Your task to perform on an android device: toggle location history Image 0: 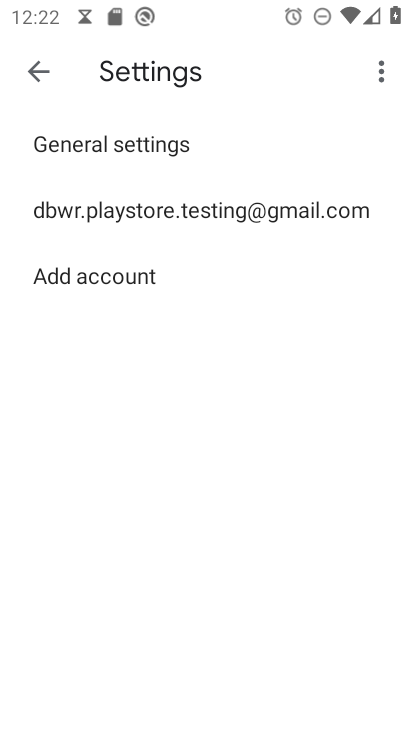
Step 0: press home button
Your task to perform on an android device: toggle location history Image 1: 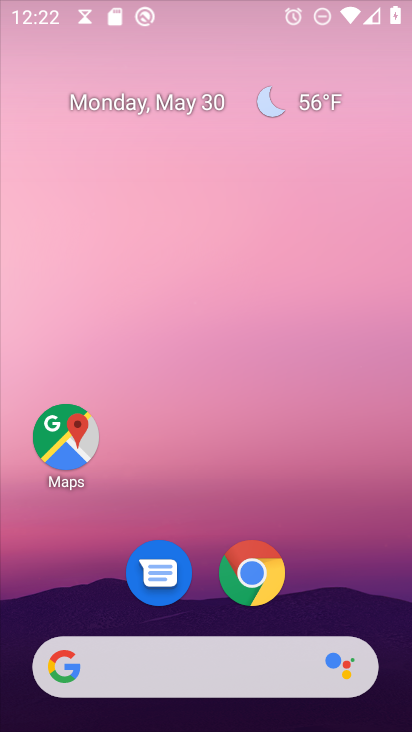
Step 1: drag from (332, 676) to (348, 40)
Your task to perform on an android device: toggle location history Image 2: 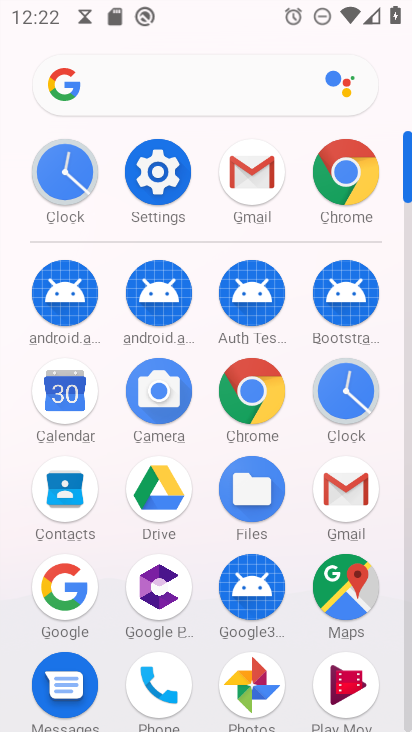
Step 2: click (152, 152)
Your task to perform on an android device: toggle location history Image 3: 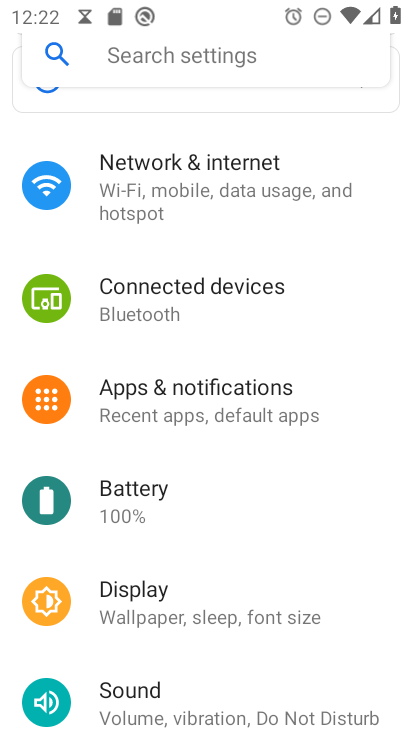
Step 3: drag from (193, 557) to (208, 21)
Your task to perform on an android device: toggle location history Image 4: 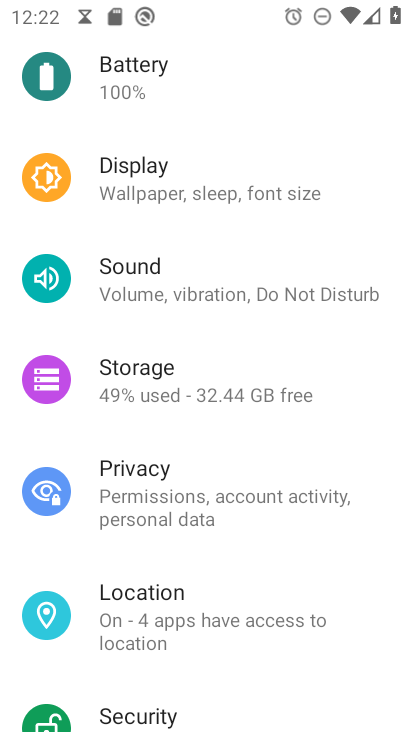
Step 4: click (193, 614)
Your task to perform on an android device: toggle location history Image 5: 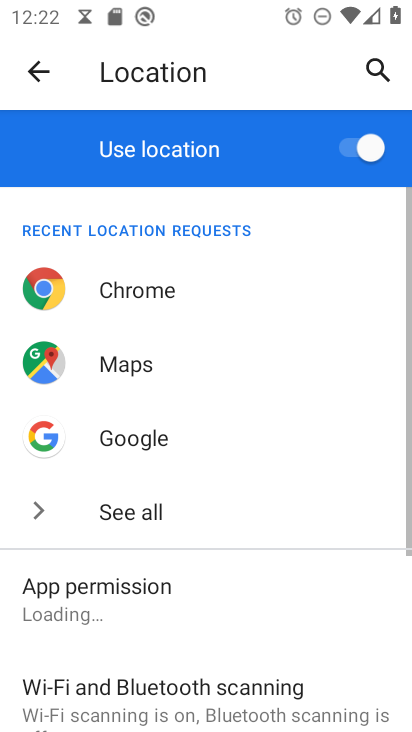
Step 5: drag from (190, 638) to (190, 74)
Your task to perform on an android device: toggle location history Image 6: 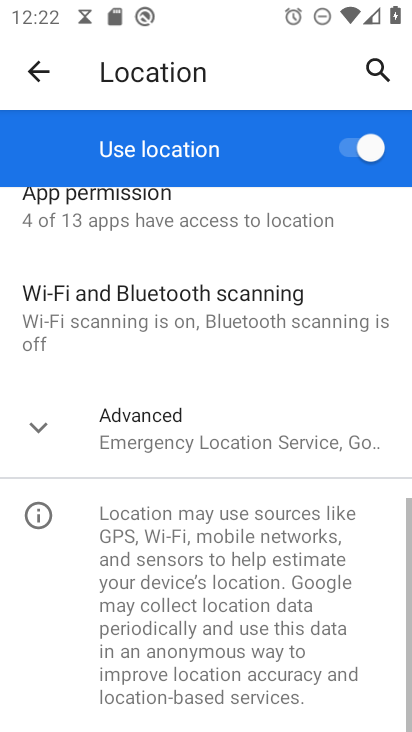
Step 6: click (177, 430)
Your task to perform on an android device: toggle location history Image 7: 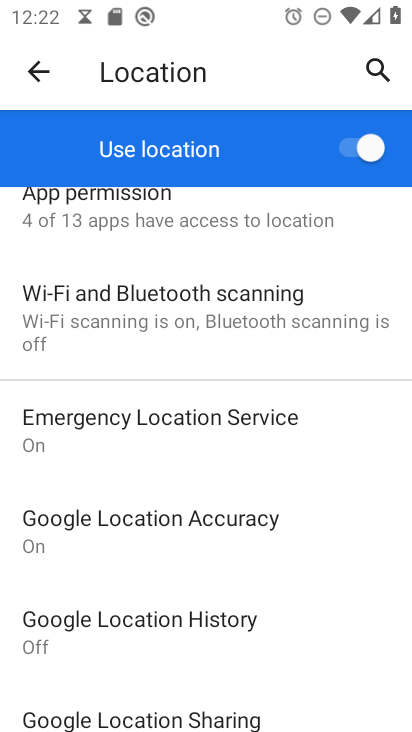
Step 7: click (211, 640)
Your task to perform on an android device: toggle location history Image 8: 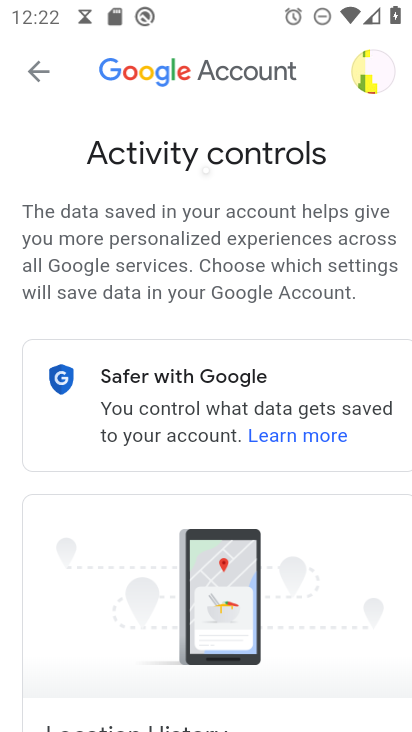
Step 8: drag from (279, 608) to (236, 5)
Your task to perform on an android device: toggle location history Image 9: 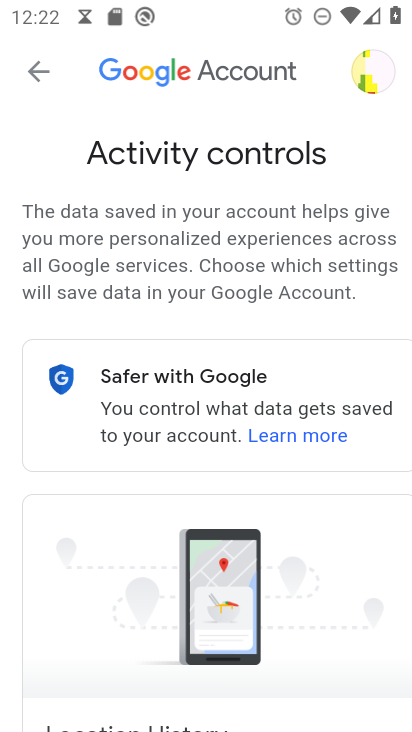
Step 9: drag from (245, 629) to (220, 2)
Your task to perform on an android device: toggle location history Image 10: 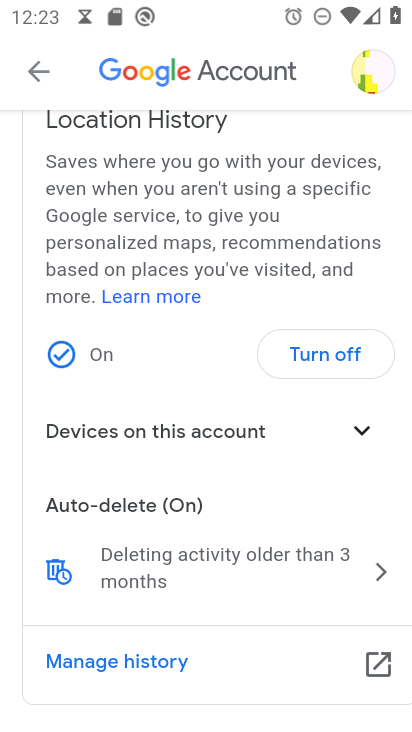
Step 10: click (318, 353)
Your task to perform on an android device: toggle location history Image 11: 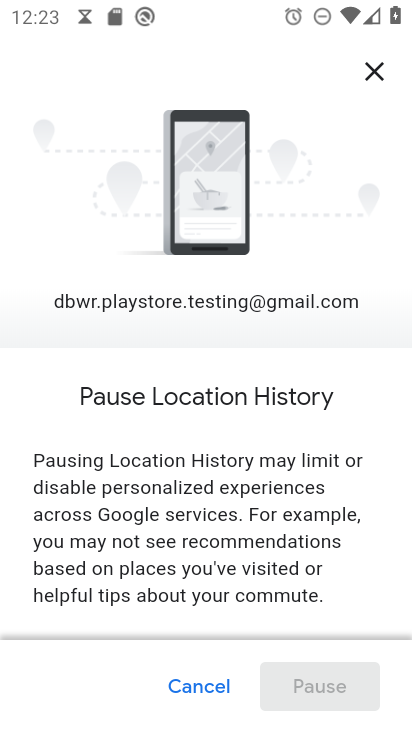
Step 11: drag from (234, 607) to (232, 1)
Your task to perform on an android device: toggle location history Image 12: 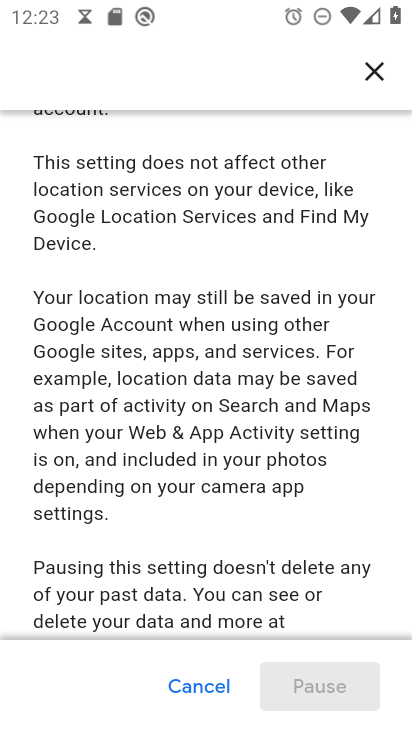
Step 12: drag from (275, 501) to (253, 79)
Your task to perform on an android device: toggle location history Image 13: 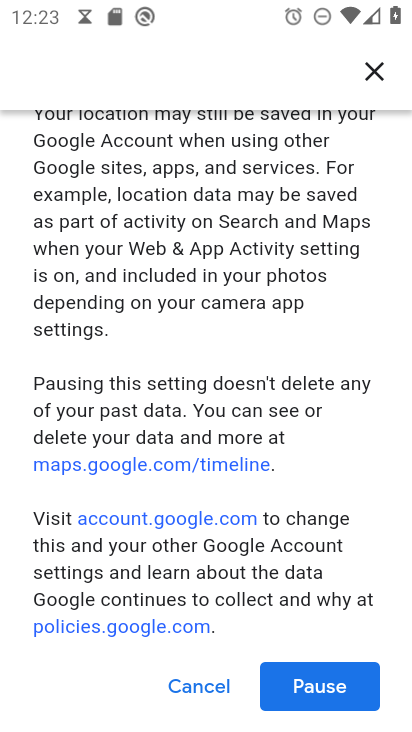
Step 13: click (328, 686)
Your task to perform on an android device: toggle location history Image 14: 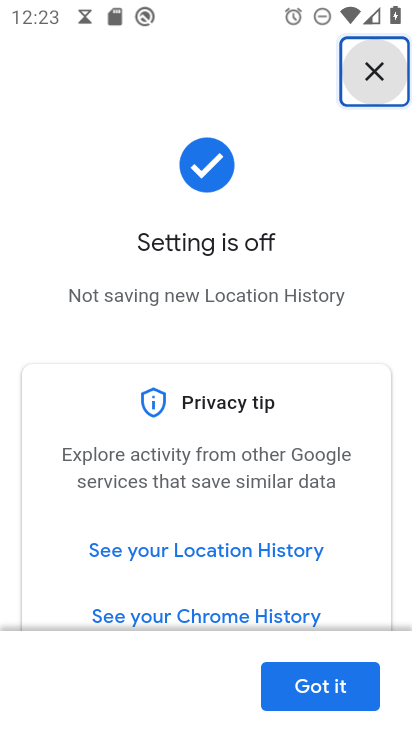
Step 14: task complete